Your task to perform on an android device: remove spam from my inbox in the gmail app Image 0: 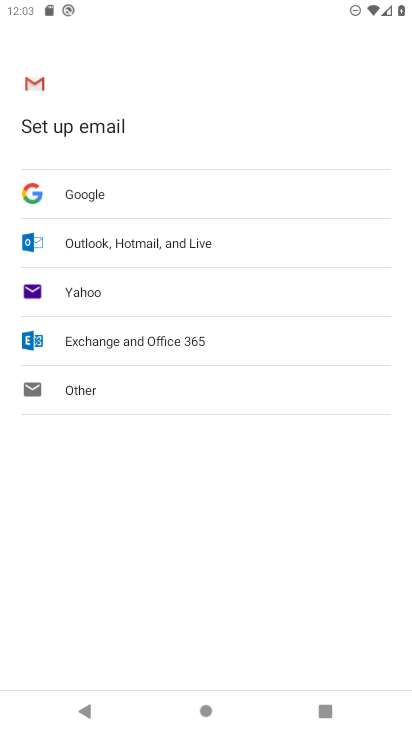
Step 0: press home button
Your task to perform on an android device: remove spam from my inbox in the gmail app Image 1: 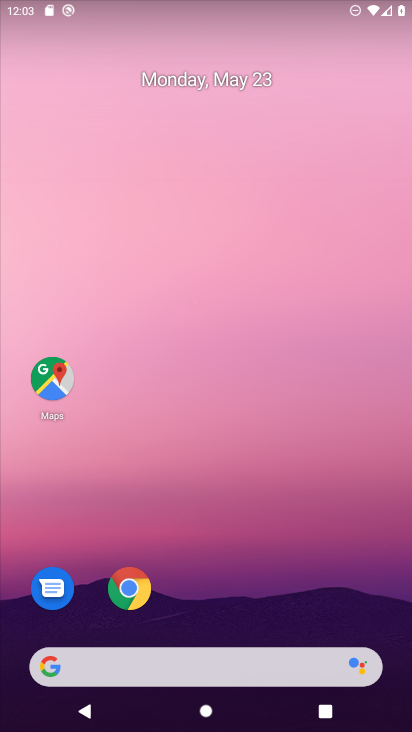
Step 1: drag from (258, 694) to (300, 182)
Your task to perform on an android device: remove spam from my inbox in the gmail app Image 2: 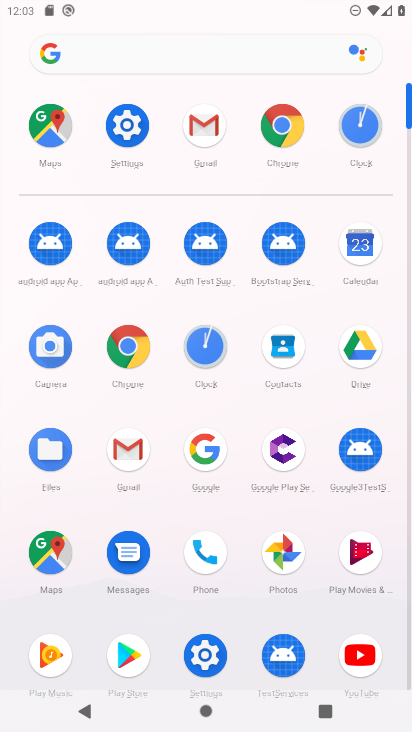
Step 2: click (193, 110)
Your task to perform on an android device: remove spam from my inbox in the gmail app Image 3: 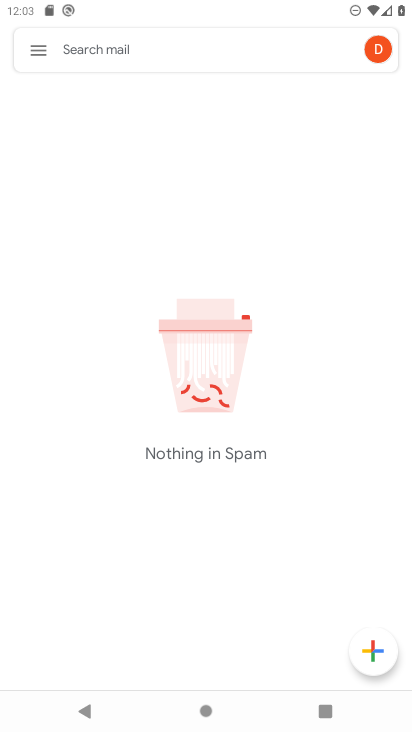
Step 3: click (33, 46)
Your task to perform on an android device: remove spam from my inbox in the gmail app Image 4: 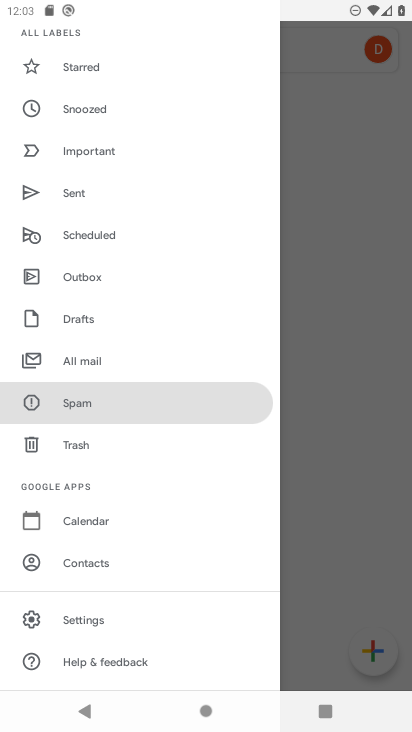
Step 4: click (99, 391)
Your task to perform on an android device: remove spam from my inbox in the gmail app Image 5: 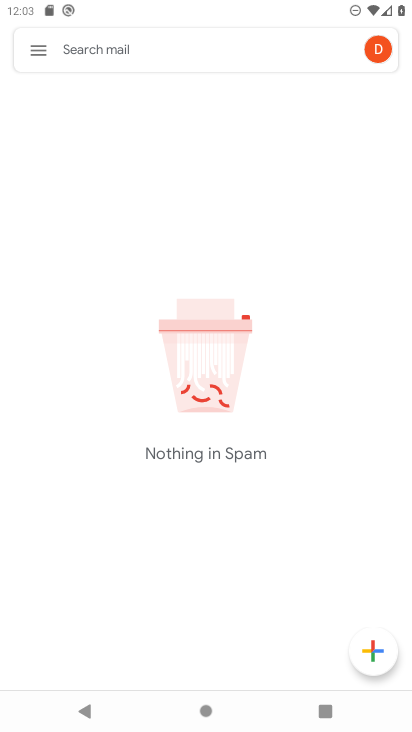
Step 5: task complete